Your task to perform on an android device: turn on improve location accuracy Image 0: 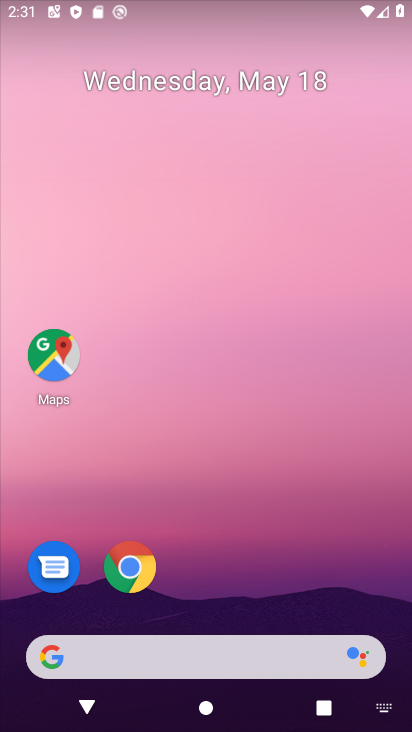
Step 0: drag from (280, 612) to (277, 176)
Your task to perform on an android device: turn on improve location accuracy Image 1: 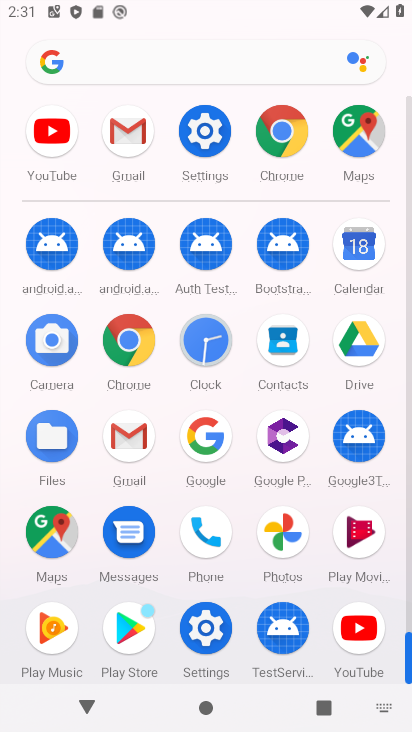
Step 1: click (207, 141)
Your task to perform on an android device: turn on improve location accuracy Image 2: 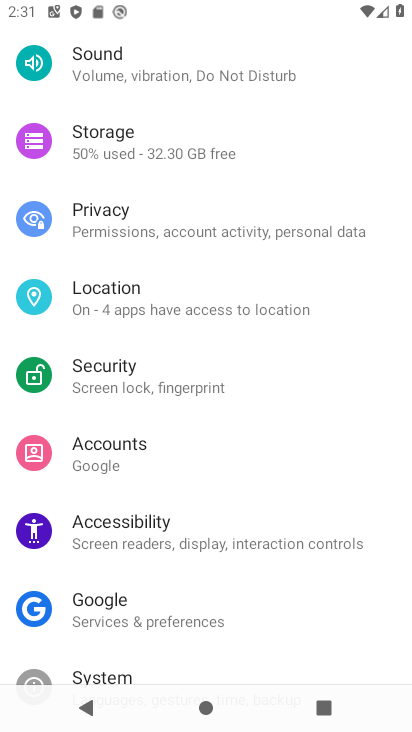
Step 2: click (137, 309)
Your task to perform on an android device: turn on improve location accuracy Image 3: 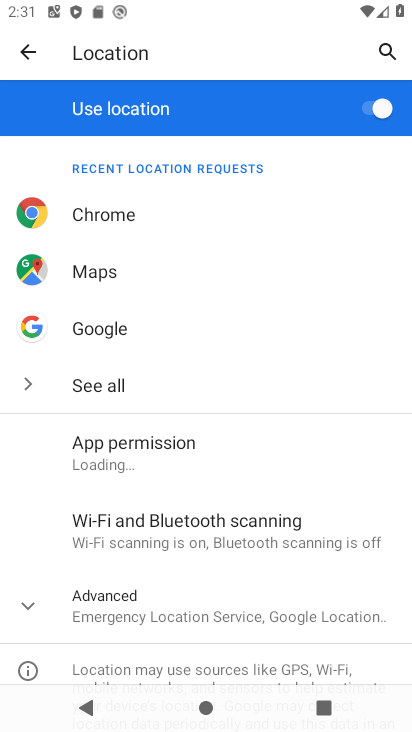
Step 3: click (197, 622)
Your task to perform on an android device: turn on improve location accuracy Image 4: 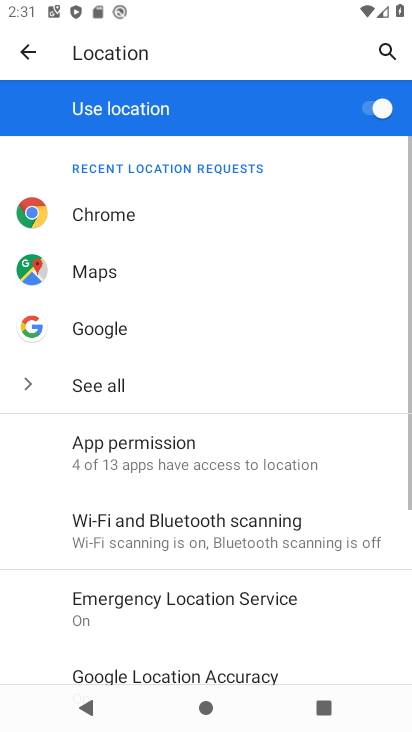
Step 4: drag from (252, 623) to (287, 137)
Your task to perform on an android device: turn on improve location accuracy Image 5: 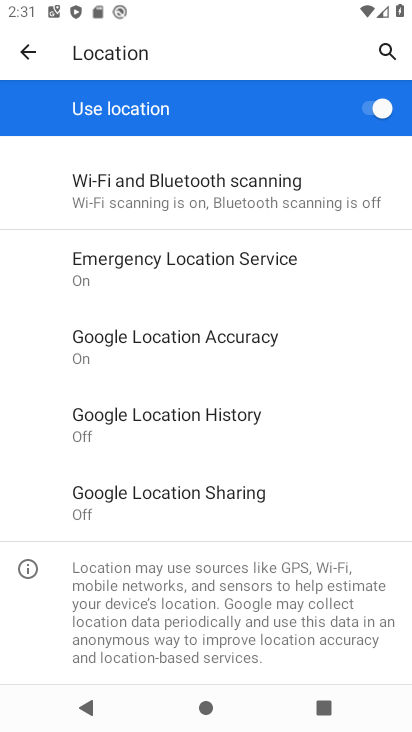
Step 5: click (206, 342)
Your task to perform on an android device: turn on improve location accuracy Image 6: 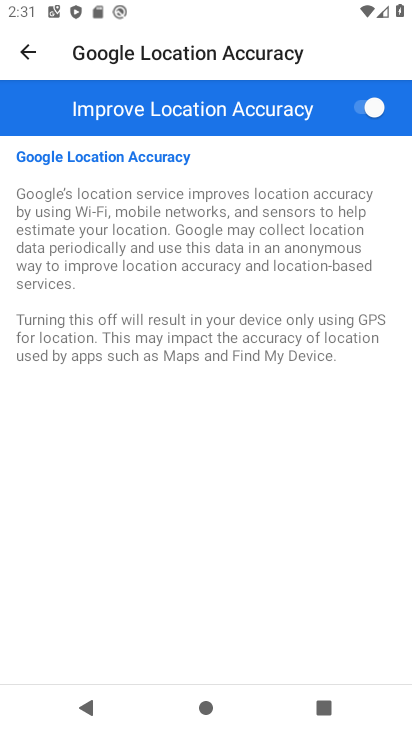
Step 6: task complete